Your task to perform on an android device: open a bookmark in the chrome app Image 0: 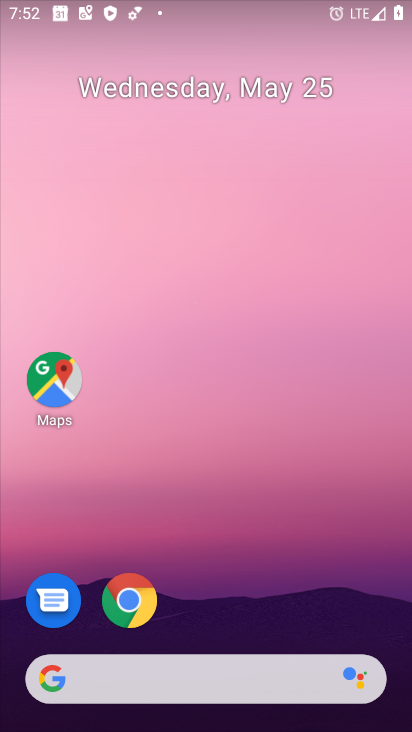
Step 0: click (131, 597)
Your task to perform on an android device: open a bookmark in the chrome app Image 1: 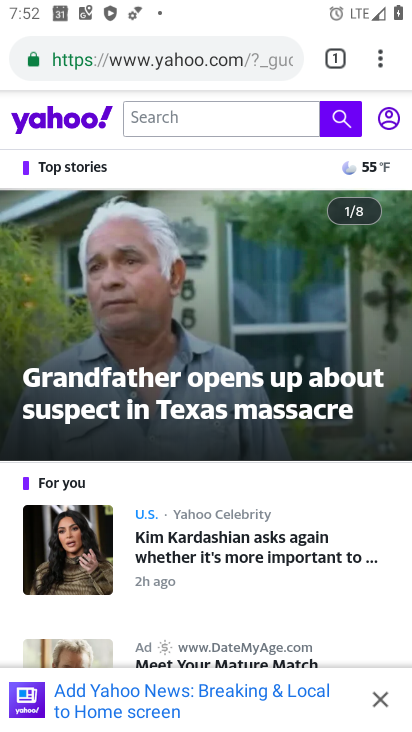
Step 1: drag from (382, 55) to (190, 222)
Your task to perform on an android device: open a bookmark in the chrome app Image 2: 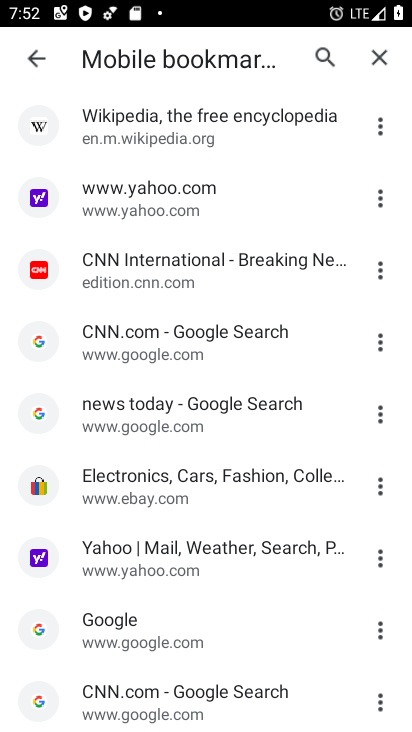
Step 2: click (166, 137)
Your task to perform on an android device: open a bookmark in the chrome app Image 3: 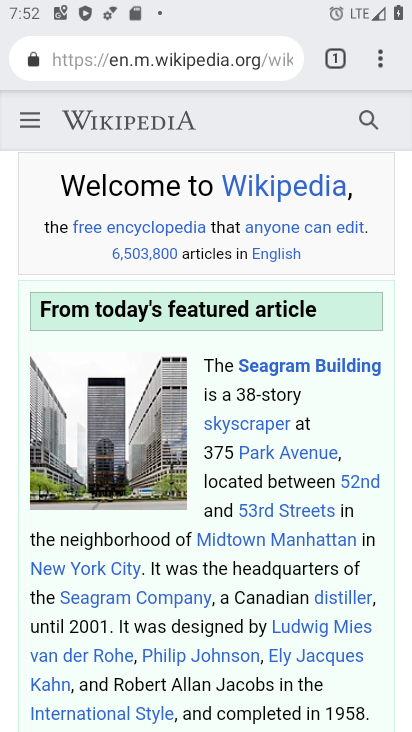
Step 3: task complete